Your task to perform on an android device: Go to ESPN.com Image 0: 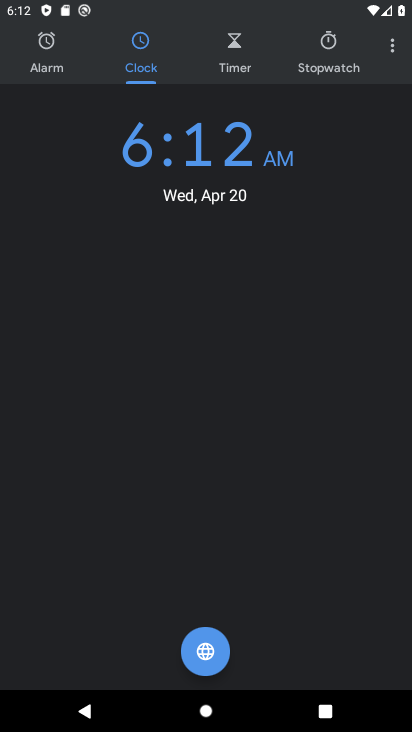
Step 0: click (388, 47)
Your task to perform on an android device: Go to ESPN.com Image 1: 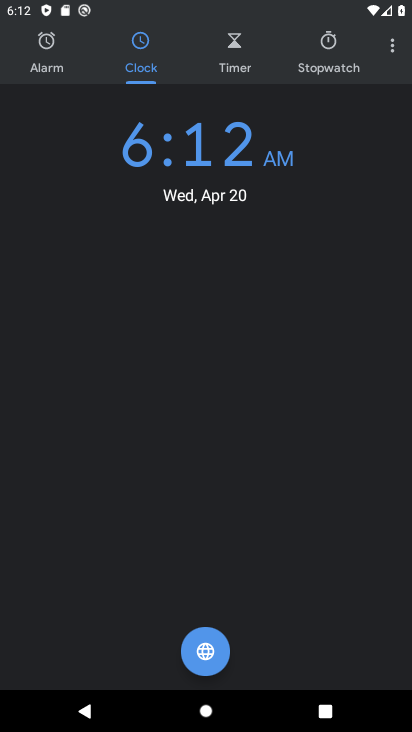
Step 1: press home button
Your task to perform on an android device: Go to ESPN.com Image 2: 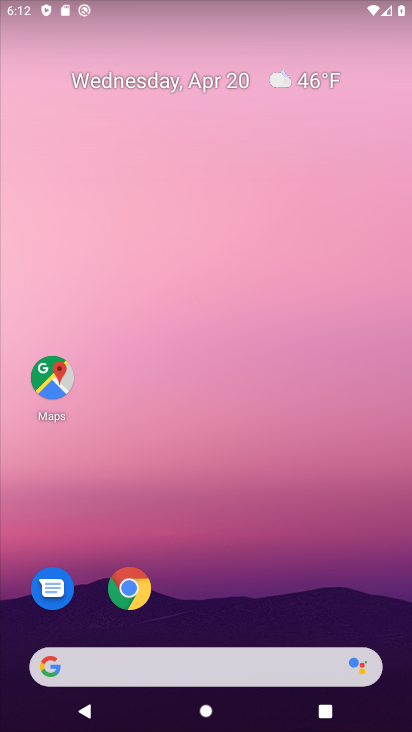
Step 2: drag from (324, 598) to (233, 93)
Your task to perform on an android device: Go to ESPN.com Image 3: 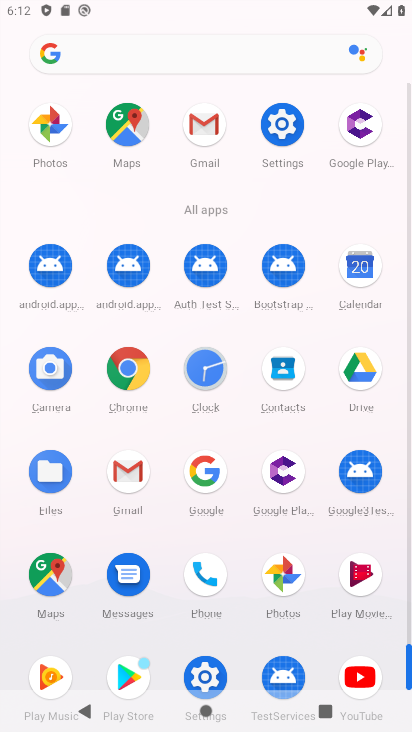
Step 3: click (117, 358)
Your task to perform on an android device: Go to ESPN.com Image 4: 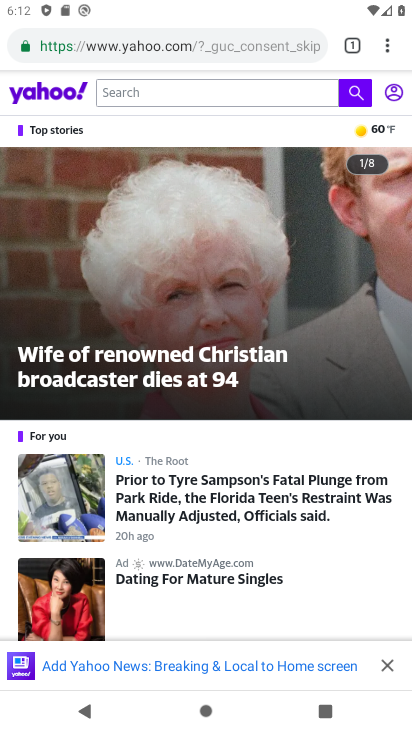
Step 4: click (209, 36)
Your task to perform on an android device: Go to ESPN.com Image 5: 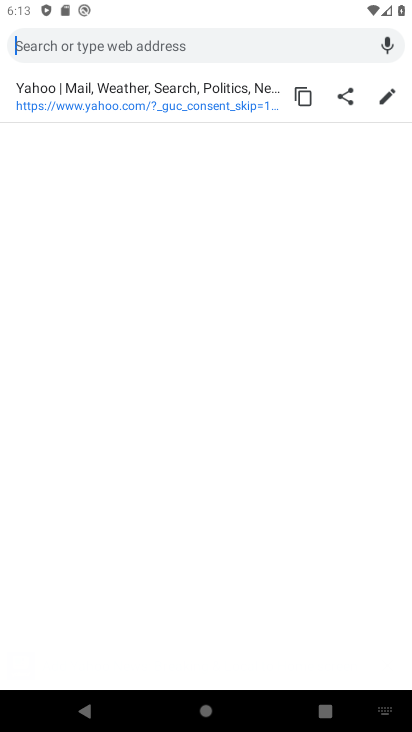
Step 5: type " ESPN.com"
Your task to perform on an android device: Go to ESPN.com Image 6: 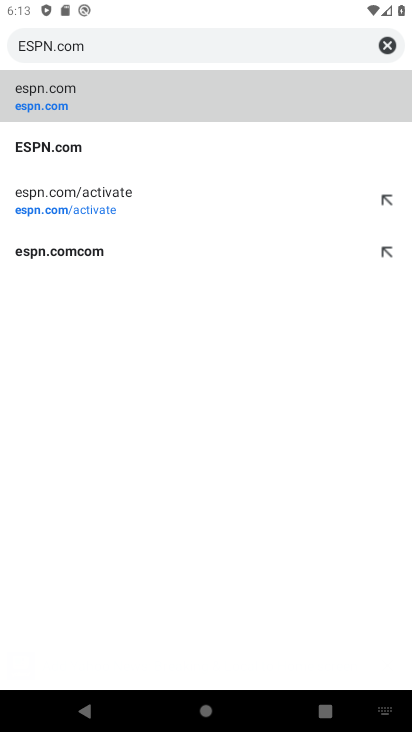
Step 6: click (39, 101)
Your task to perform on an android device: Go to ESPN.com Image 7: 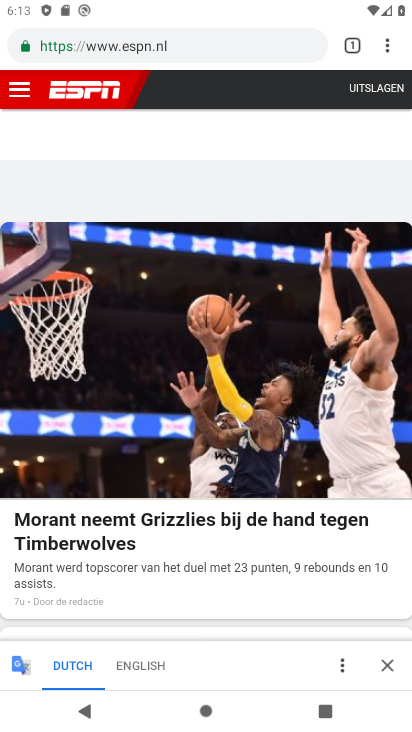
Step 7: task complete